Your task to perform on an android device: delete a single message in the gmail app Image 0: 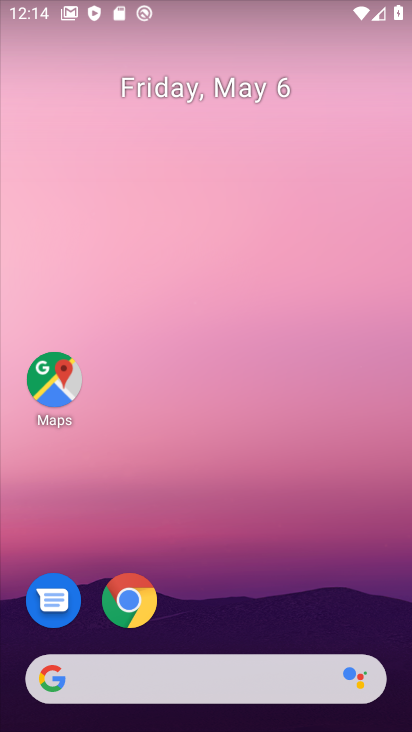
Step 0: drag from (189, 652) to (294, 115)
Your task to perform on an android device: delete a single message in the gmail app Image 1: 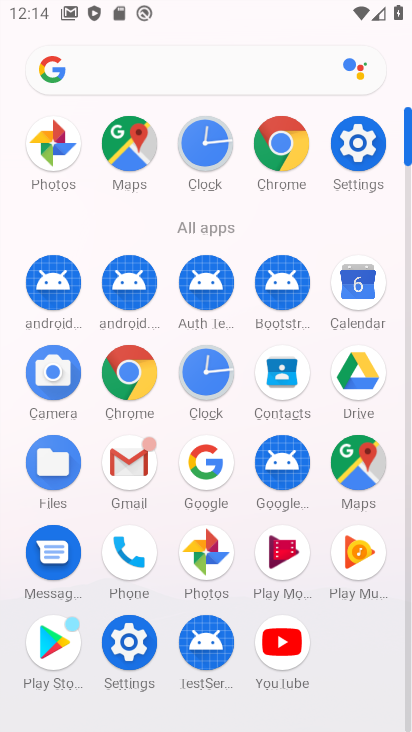
Step 1: click (129, 462)
Your task to perform on an android device: delete a single message in the gmail app Image 2: 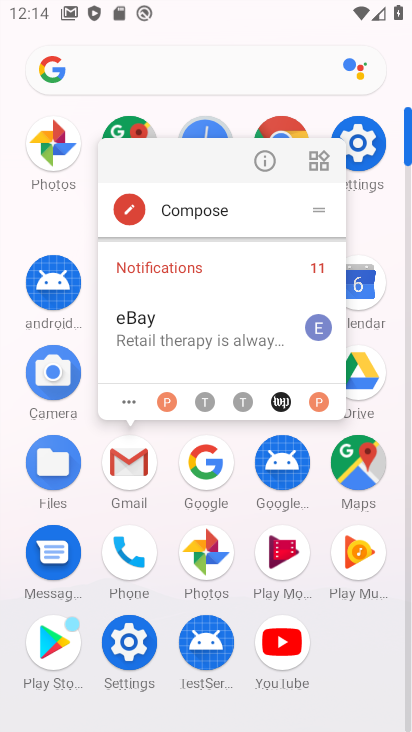
Step 2: click (132, 476)
Your task to perform on an android device: delete a single message in the gmail app Image 3: 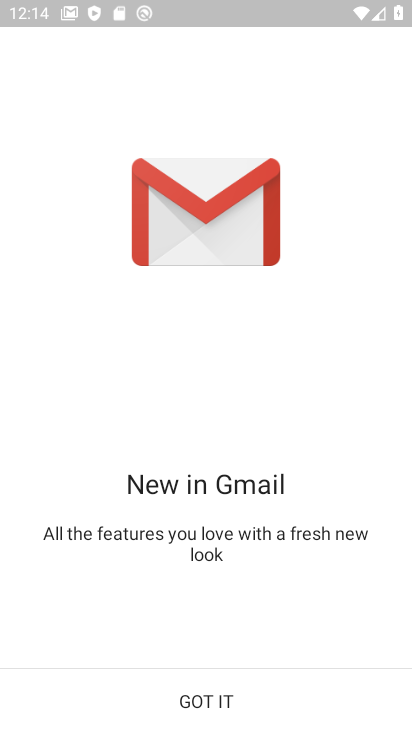
Step 3: click (186, 715)
Your task to perform on an android device: delete a single message in the gmail app Image 4: 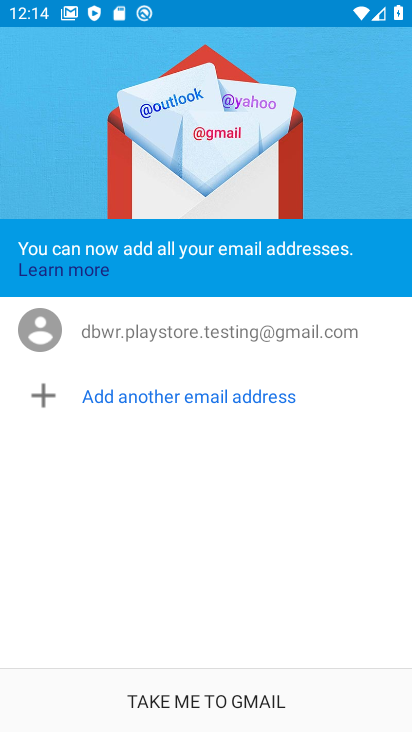
Step 4: click (229, 720)
Your task to perform on an android device: delete a single message in the gmail app Image 5: 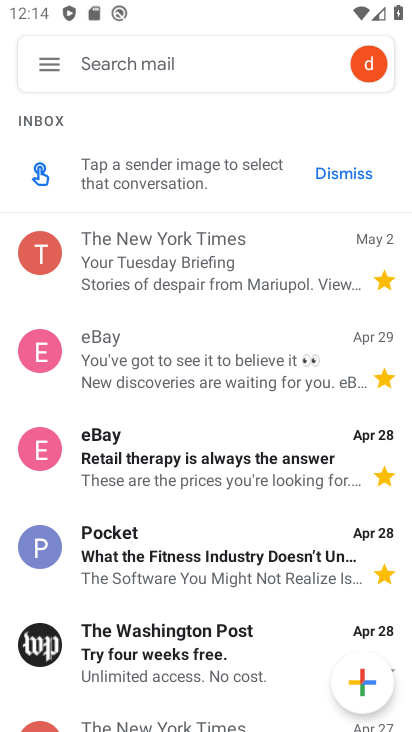
Step 5: click (194, 290)
Your task to perform on an android device: delete a single message in the gmail app Image 6: 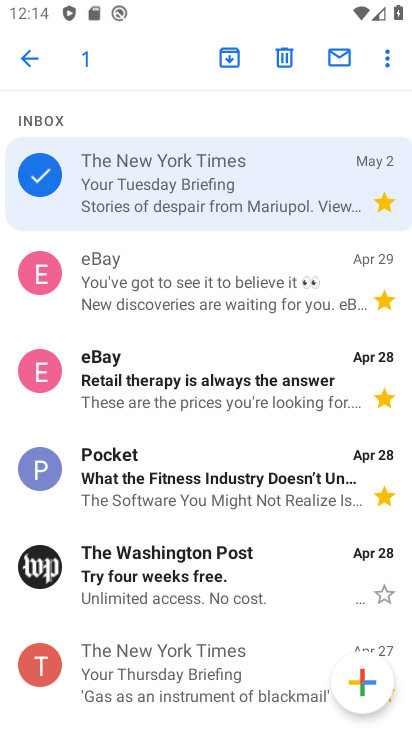
Step 6: click (280, 56)
Your task to perform on an android device: delete a single message in the gmail app Image 7: 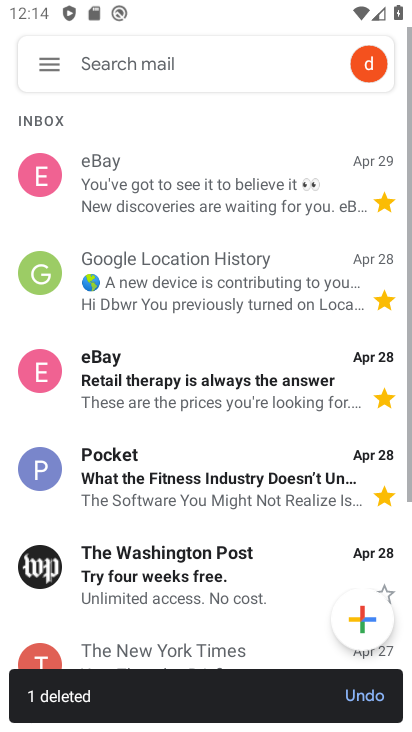
Step 7: task complete